Your task to perform on an android device: Open the calendar and show me this week's events Image 0: 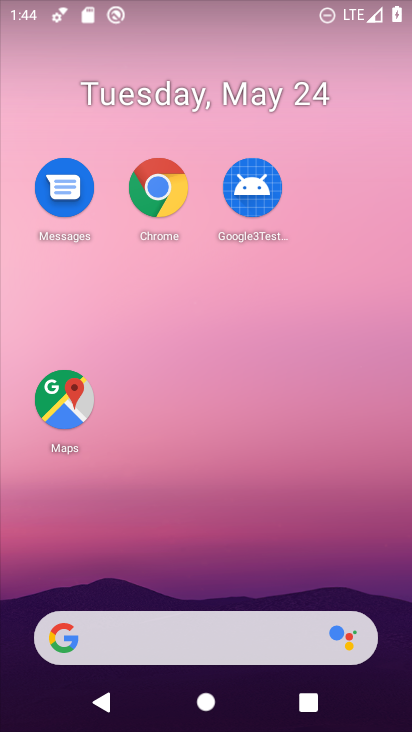
Step 0: click (167, 36)
Your task to perform on an android device: Open the calendar and show me this week's events Image 1: 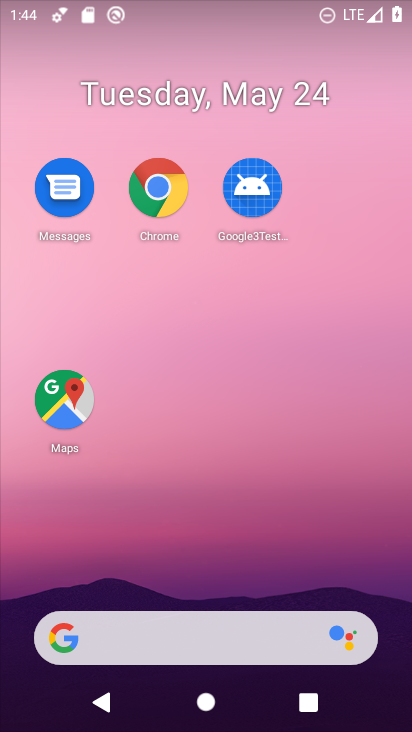
Step 1: click (313, 102)
Your task to perform on an android device: Open the calendar and show me this week's events Image 2: 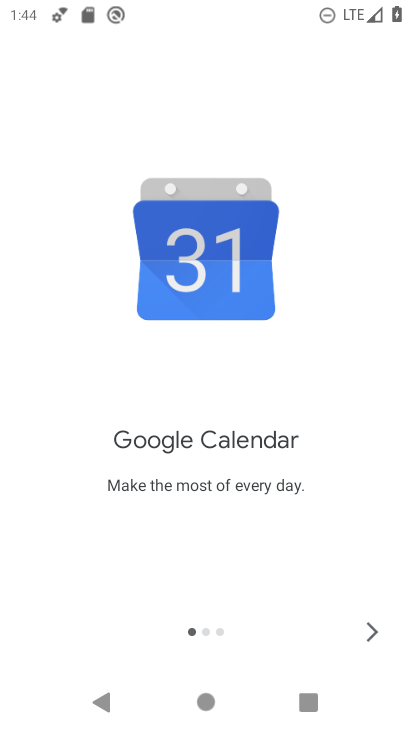
Step 2: click (373, 633)
Your task to perform on an android device: Open the calendar and show me this week's events Image 3: 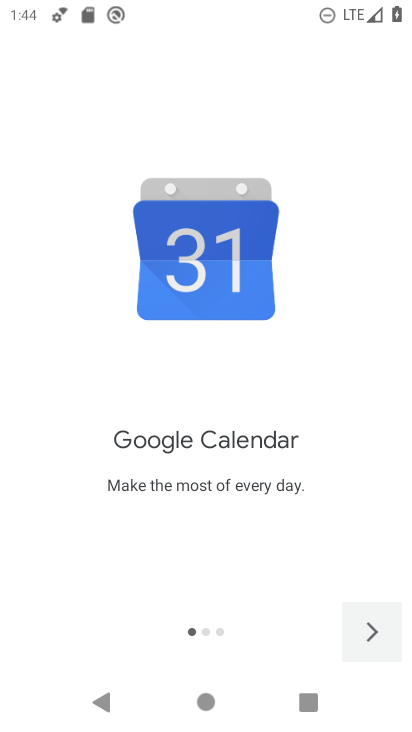
Step 3: click (372, 632)
Your task to perform on an android device: Open the calendar and show me this week's events Image 4: 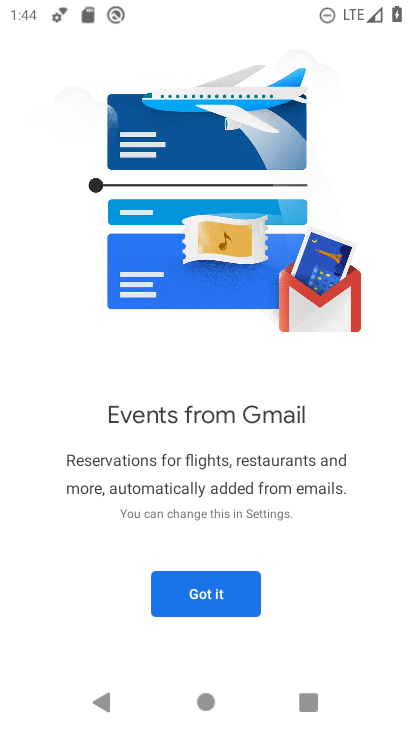
Step 4: click (372, 632)
Your task to perform on an android device: Open the calendar and show me this week's events Image 5: 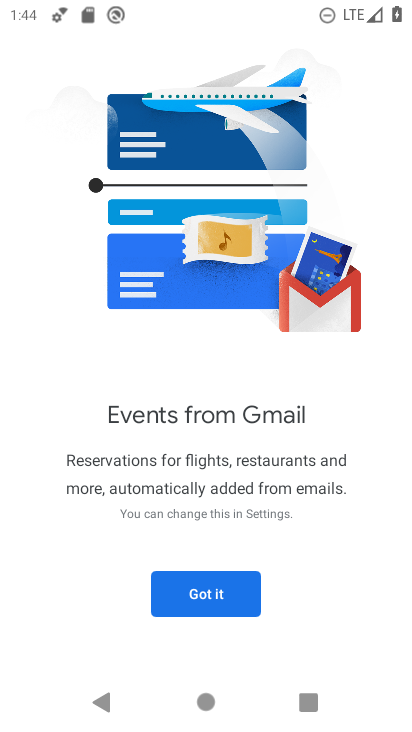
Step 5: click (372, 632)
Your task to perform on an android device: Open the calendar and show me this week's events Image 6: 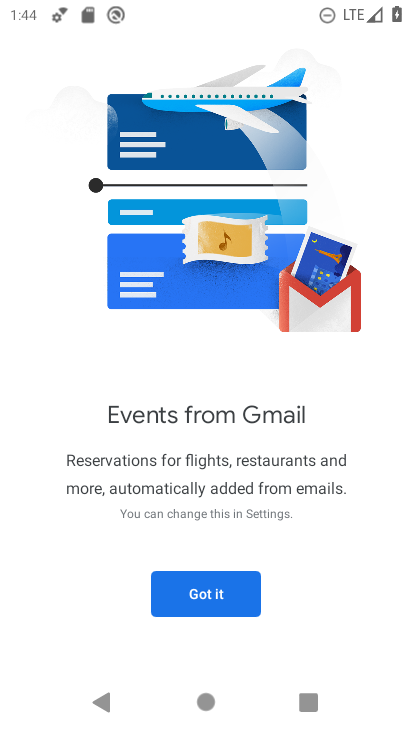
Step 6: click (206, 602)
Your task to perform on an android device: Open the calendar and show me this week's events Image 7: 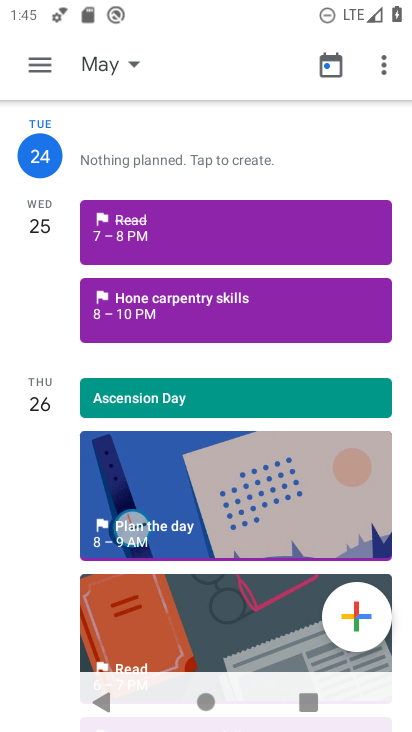
Step 7: click (108, 62)
Your task to perform on an android device: Open the calendar and show me this week's events Image 8: 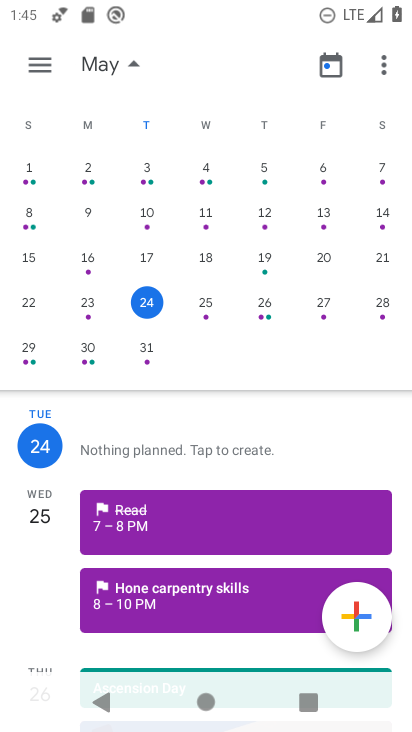
Step 8: click (32, 306)
Your task to perform on an android device: Open the calendar and show me this week's events Image 9: 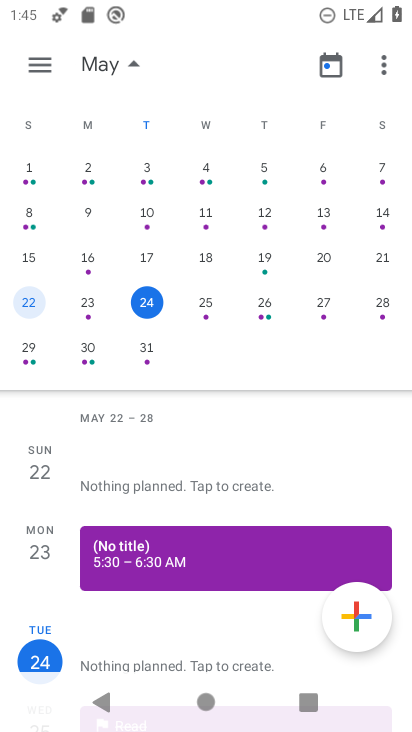
Step 9: click (35, 66)
Your task to perform on an android device: Open the calendar and show me this week's events Image 10: 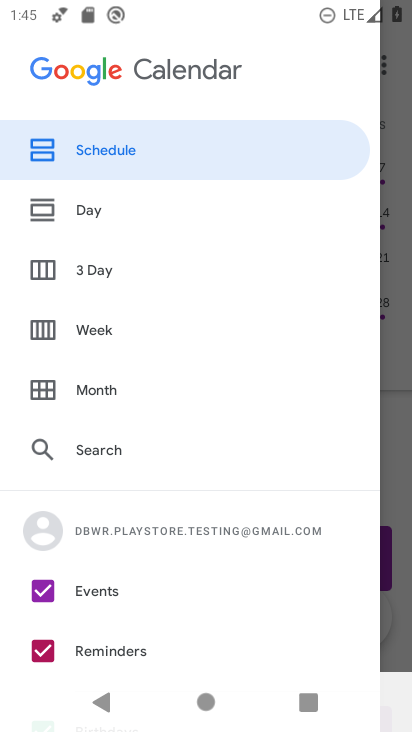
Step 10: click (94, 328)
Your task to perform on an android device: Open the calendar and show me this week's events Image 11: 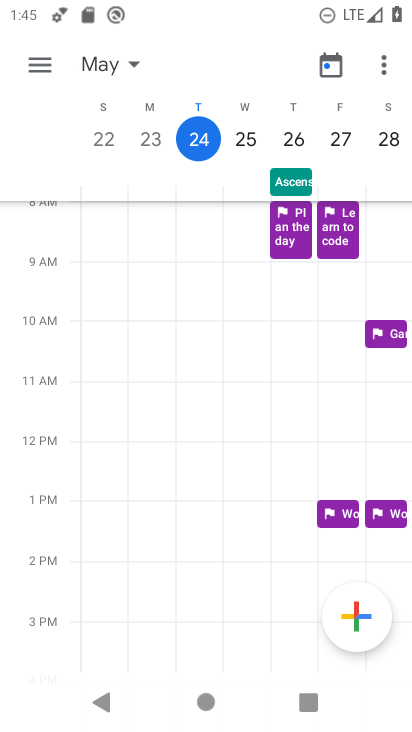
Step 11: task complete